Your task to perform on an android device: turn off data saver in the chrome app Image 0: 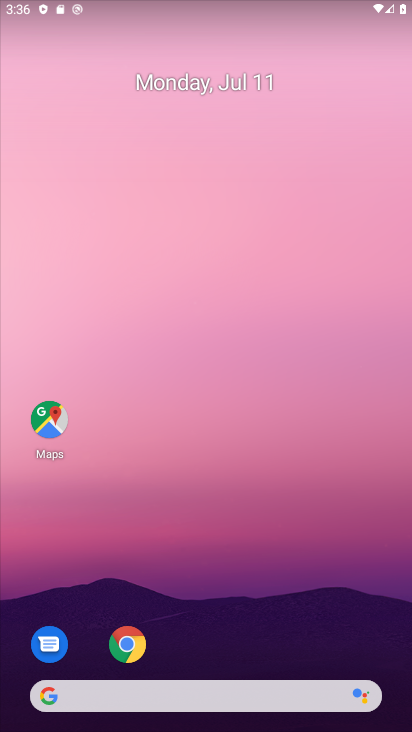
Step 0: click (125, 639)
Your task to perform on an android device: turn off data saver in the chrome app Image 1: 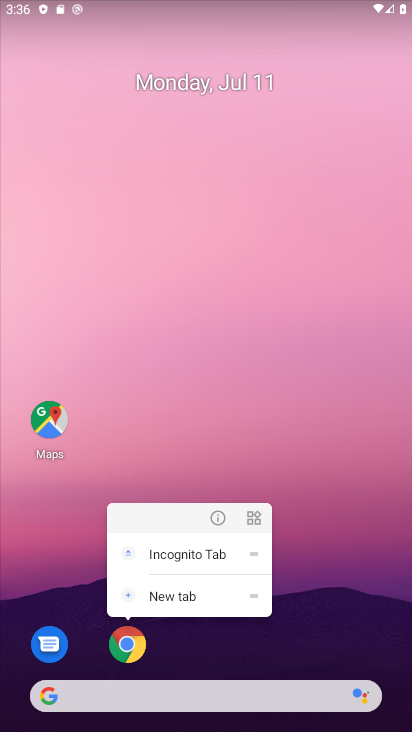
Step 1: click (127, 636)
Your task to perform on an android device: turn off data saver in the chrome app Image 2: 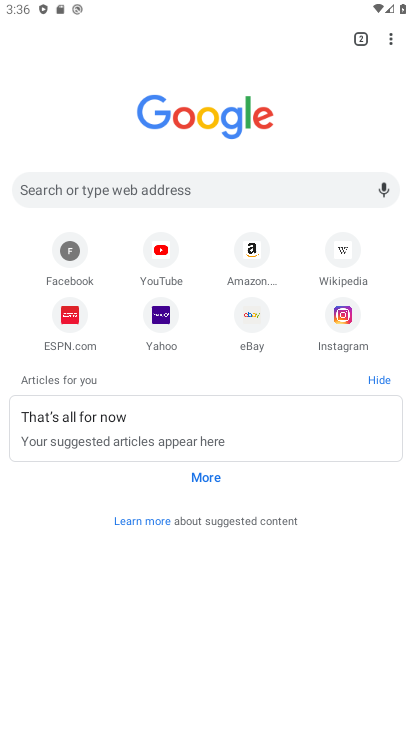
Step 2: click (388, 38)
Your task to perform on an android device: turn off data saver in the chrome app Image 3: 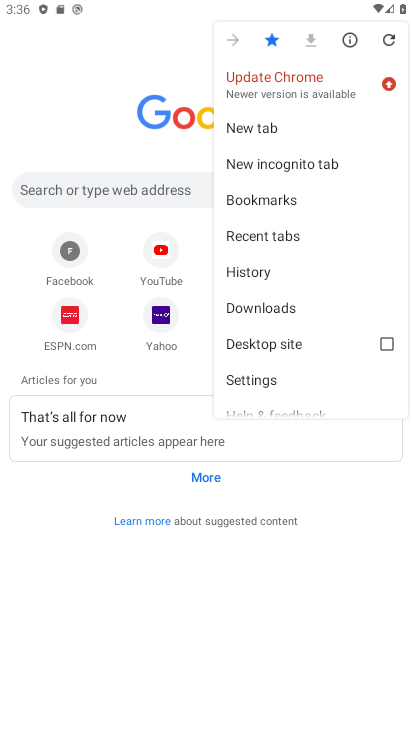
Step 3: click (282, 377)
Your task to perform on an android device: turn off data saver in the chrome app Image 4: 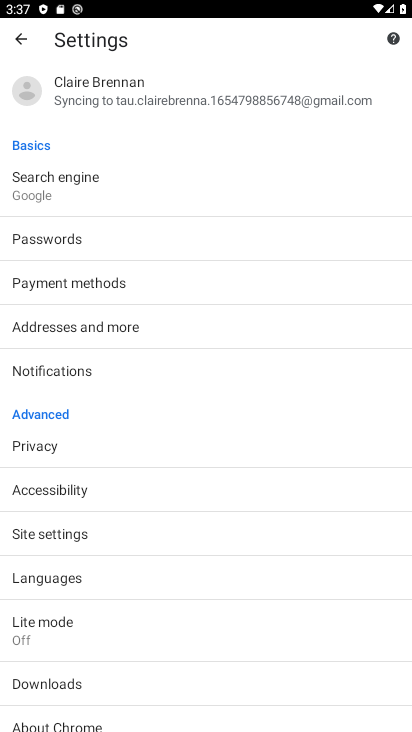
Step 4: click (71, 633)
Your task to perform on an android device: turn off data saver in the chrome app Image 5: 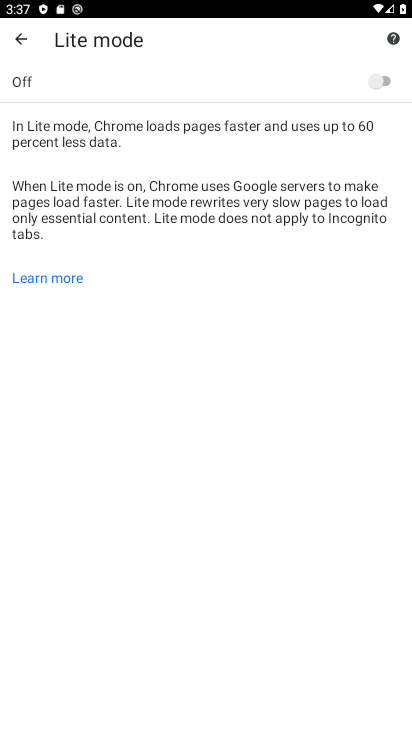
Step 5: task complete